Your task to perform on an android device: Open sound settings Image 0: 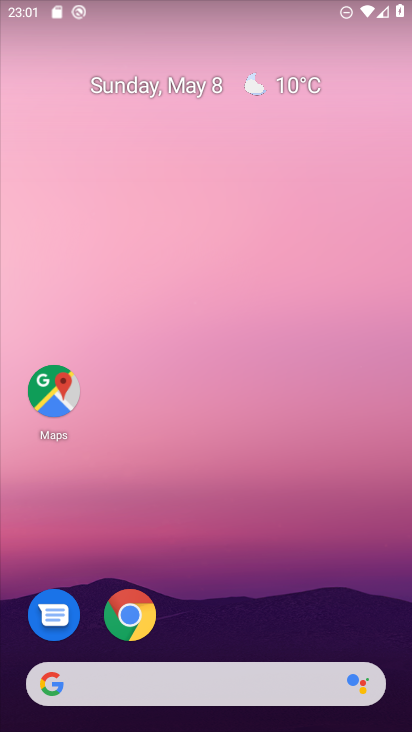
Step 0: drag from (300, 549) to (276, 25)
Your task to perform on an android device: Open sound settings Image 1: 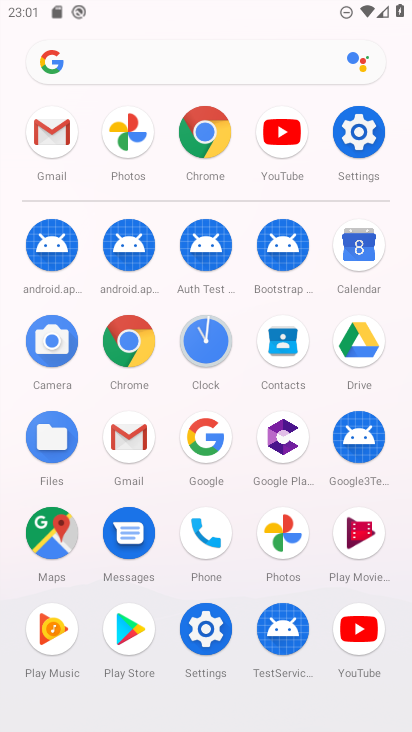
Step 1: click (363, 122)
Your task to perform on an android device: Open sound settings Image 2: 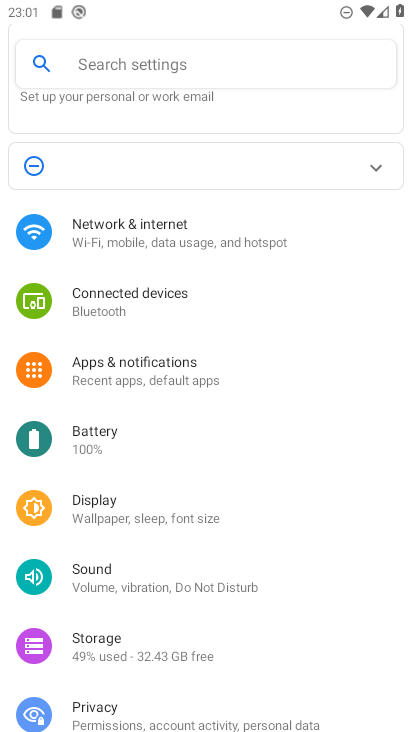
Step 2: click (123, 586)
Your task to perform on an android device: Open sound settings Image 3: 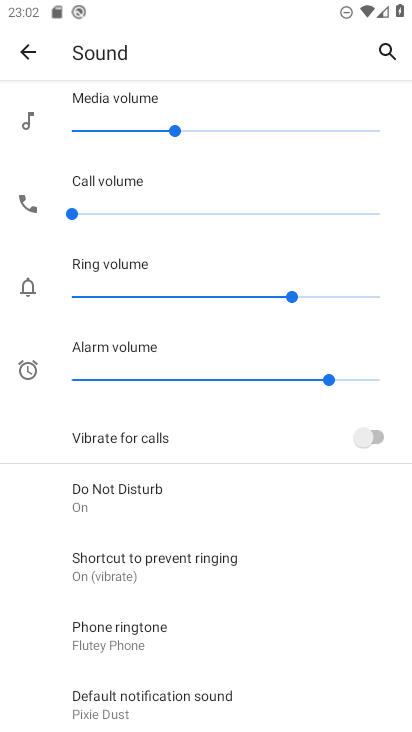
Step 3: task complete